Your task to perform on an android device: Open the stopwatch Image 0: 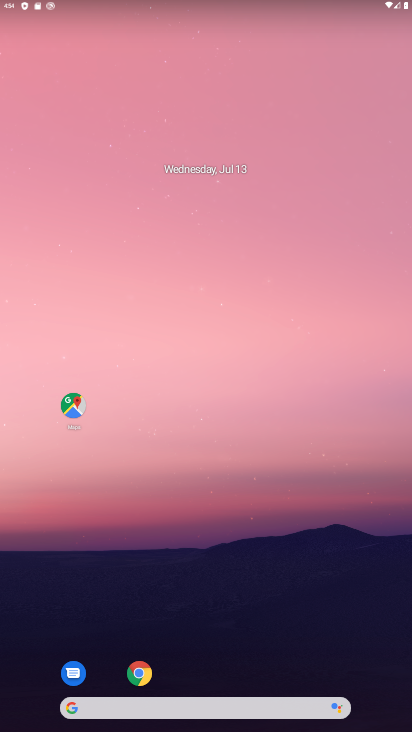
Step 0: drag from (229, 550) to (290, 213)
Your task to perform on an android device: Open the stopwatch Image 1: 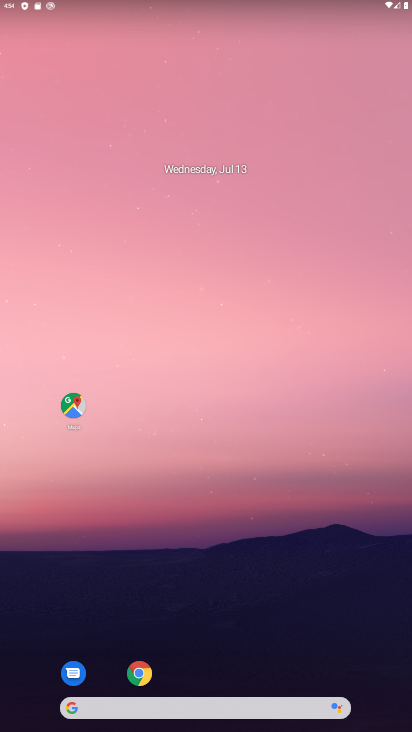
Step 1: drag from (254, 699) to (310, 200)
Your task to perform on an android device: Open the stopwatch Image 2: 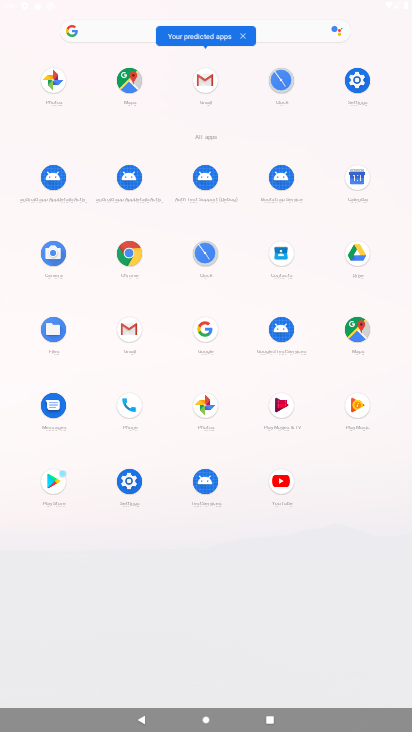
Step 2: click (203, 249)
Your task to perform on an android device: Open the stopwatch Image 3: 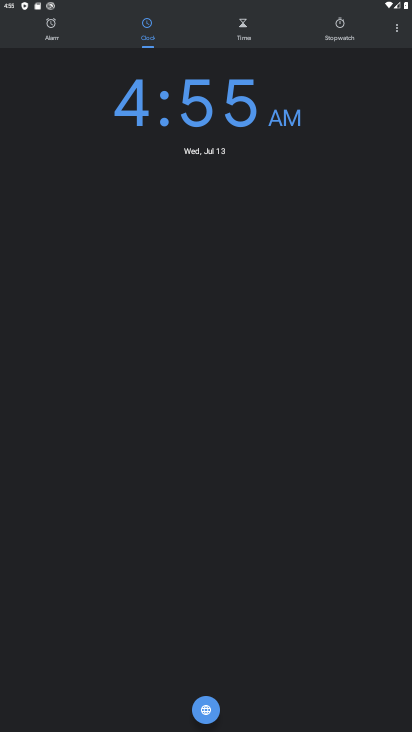
Step 3: click (335, 32)
Your task to perform on an android device: Open the stopwatch Image 4: 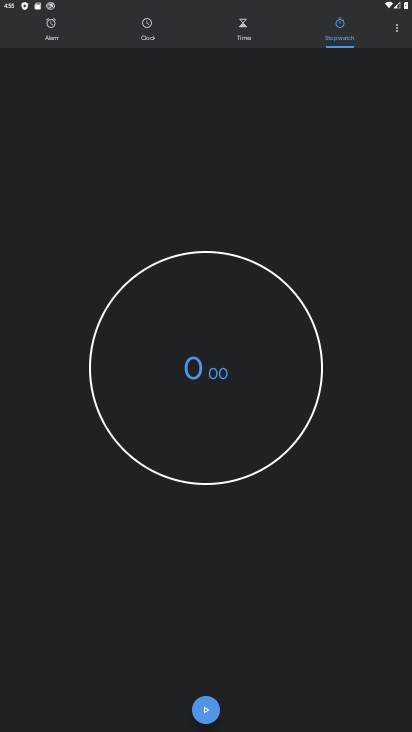
Step 4: task complete